Your task to perform on an android device: Check the news Image 0: 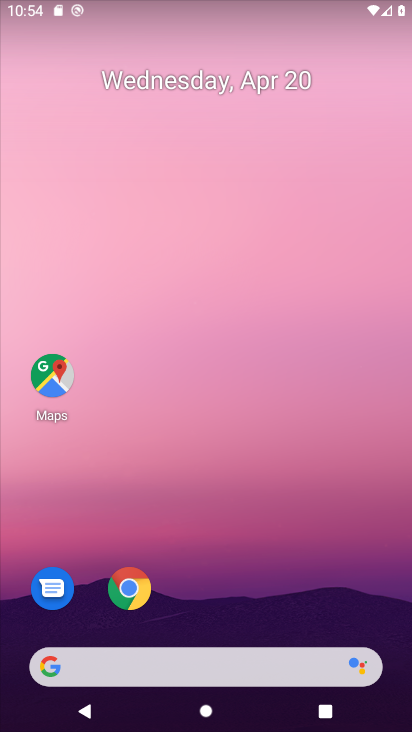
Step 0: drag from (14, 182) to (392, 205)
Your task to perform on an android device: Check the news Image 1: 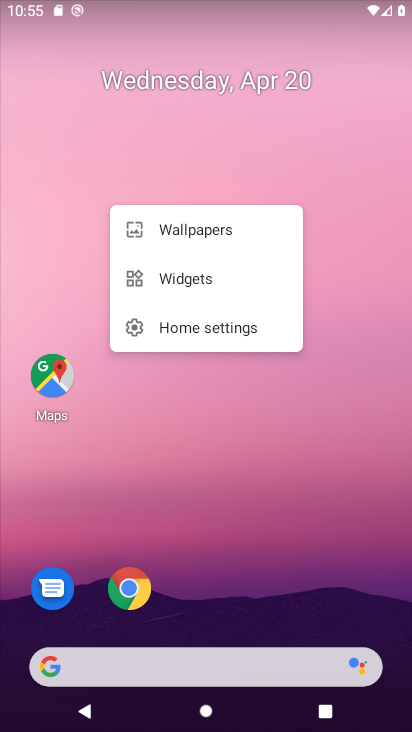
Step 1: drag from (17, 176) to (358, 198)
Your task to perform on an android device: Check the news Image 2: 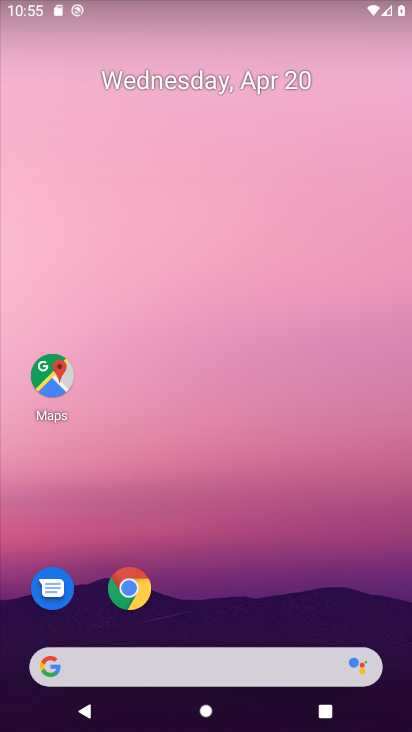
Step 2: drag from (17, 275) to (410, 267)
Your task to perform on an android device: Check the news Image 3: 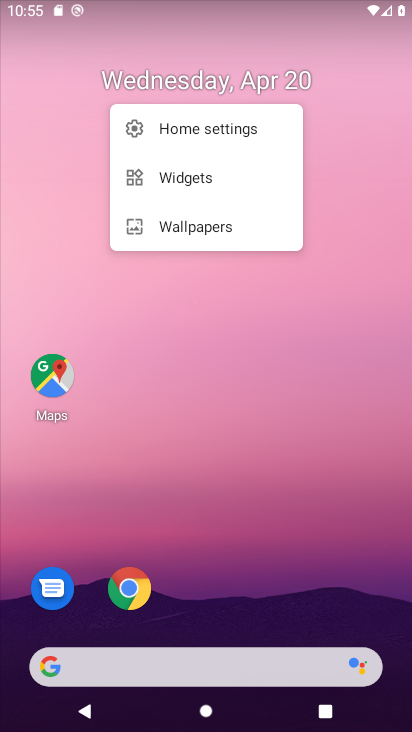
Step 3: click (128, 592)
Your task to perform on an android device: Check the news Image 4: 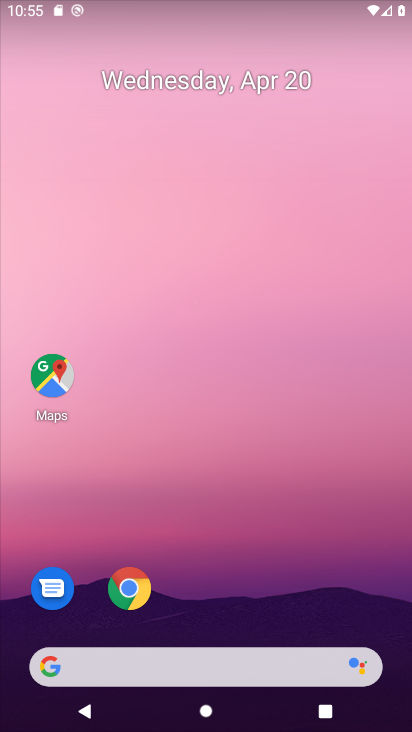
Step 4: click (128, 592)
Your task to perform on an android device: Check the news Image 5: 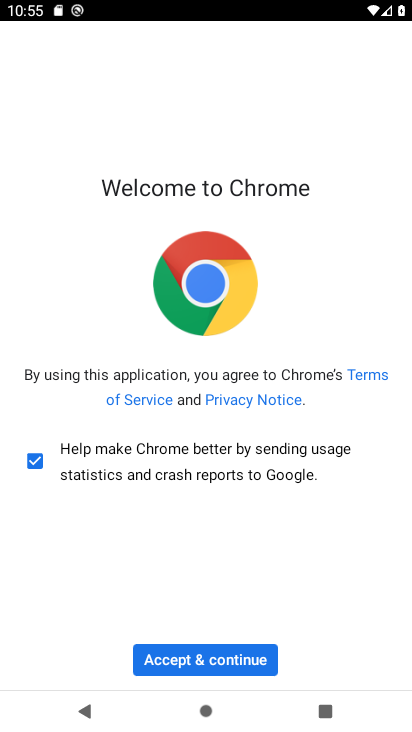
Step 5: click (234, 658)
Your task to perform on an android device: Check the news Image 6: 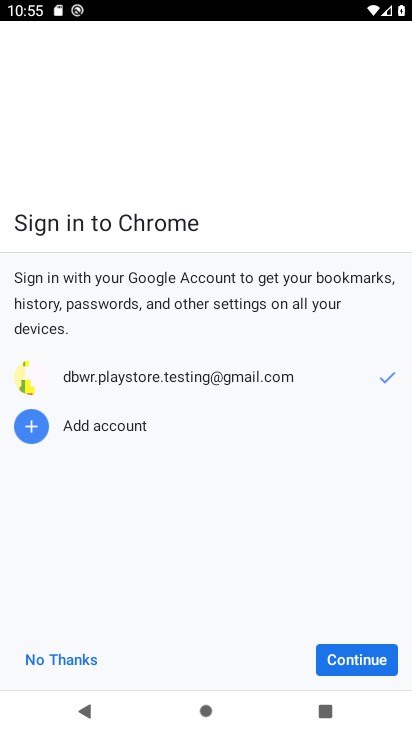
Step 6: click (344, 669)
Your task to perform on an android device: Check the news Image 7: 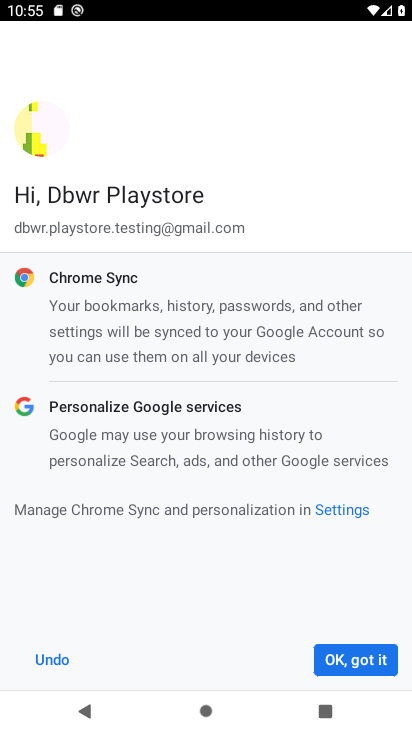
Step 7: click (344, 669)
Your task to perform on an android device: Check the news Image 8: 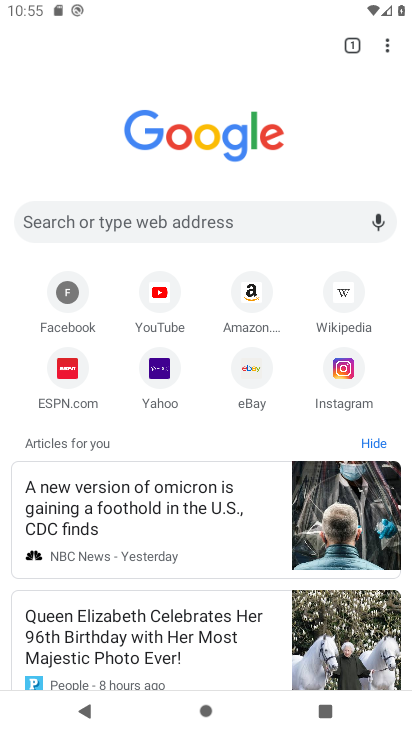
Step 8: task complete